Your task to perform on an android device: Is it going to rain this weekend? Image 0: 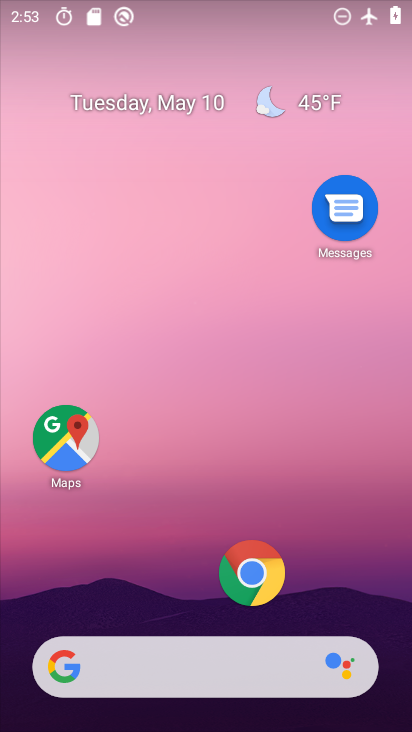
Step 0: drag from (172, 651) to (209, 160)
Your task to perform on an android device: Is it going to rain this weekend? Image 1: 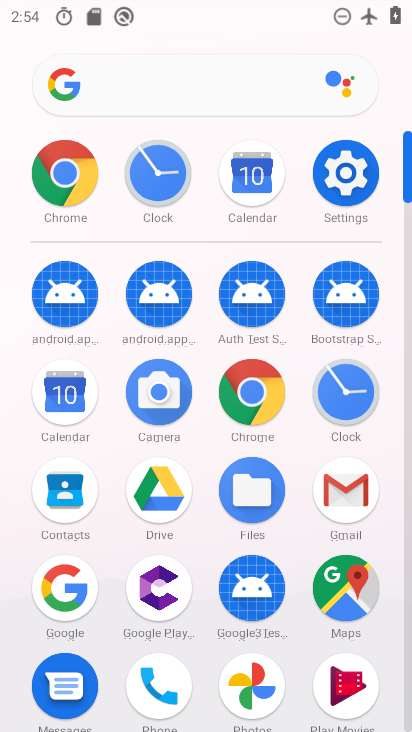
Step 1: click (214, 87)
Your task to perform on an android device: Is it going to rain this weekend? Image 2: 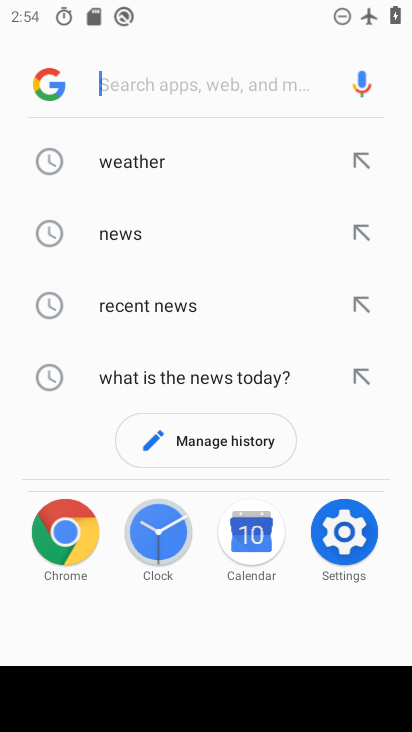
Step 2: type "rain weekend"
Your task to perform on an android device: Is it going to rain this weekend? Image 3: 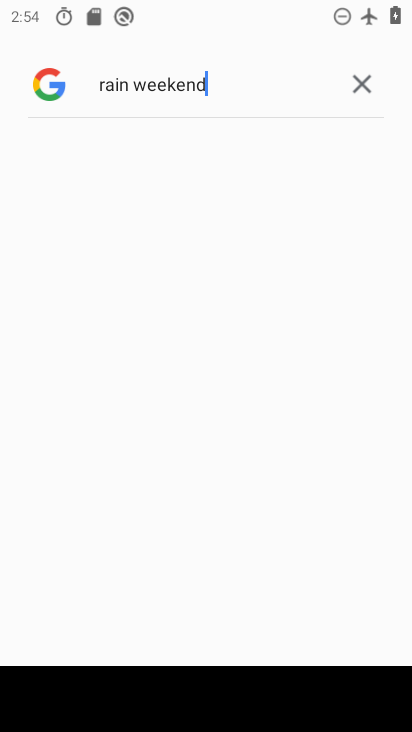
Step 3: task complete